Your task to perform on an android device: Do I have any events tomorrow? Image 0: 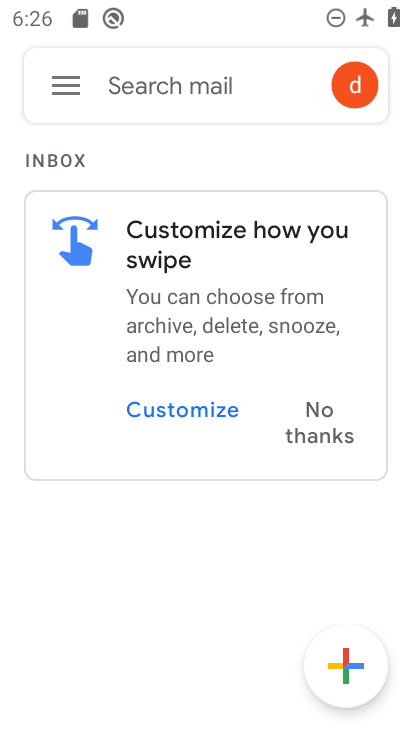
Step 0: press home button
Your task to perform on an android device: Do I have any events tomorrow? Image 1: 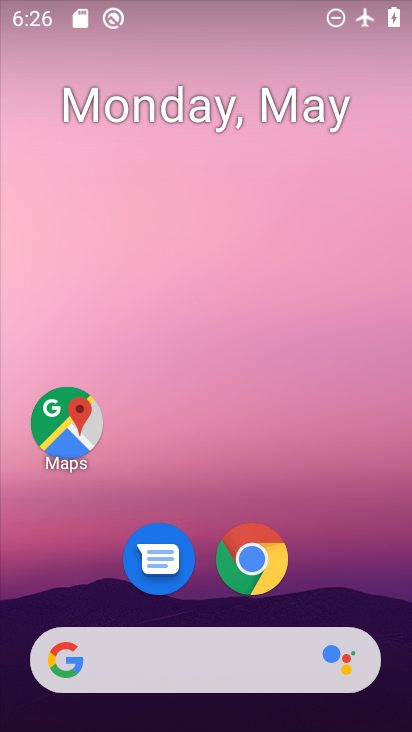
Step 1: drag from (279, 395) to (167, 40)
Your task to perform on an android device: Do I have any events tomorrow? Image 2: 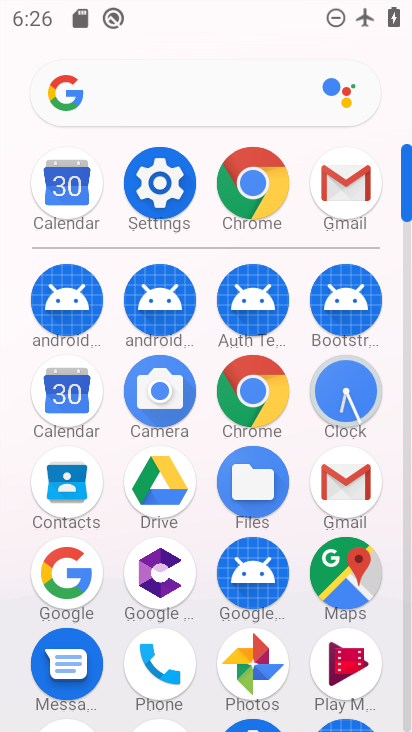
Step 2: click (56, 374)
Your task to perform on an android device: Do I have any events tomorrow? Image 3: 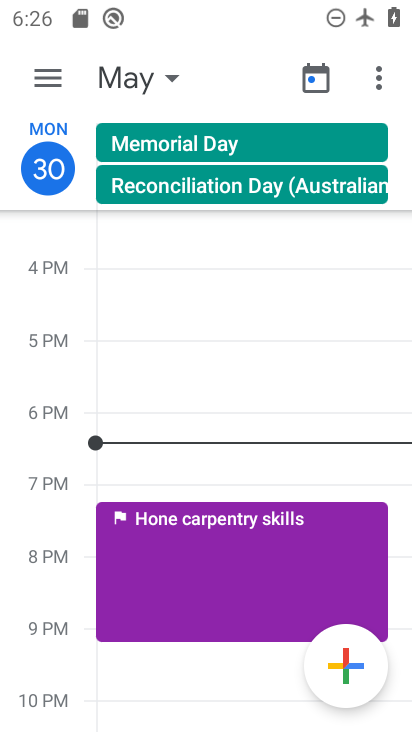
Step 3: click (166, 73)
Your task to perform on an android device: Do I have any events tomorrow? Image 4: 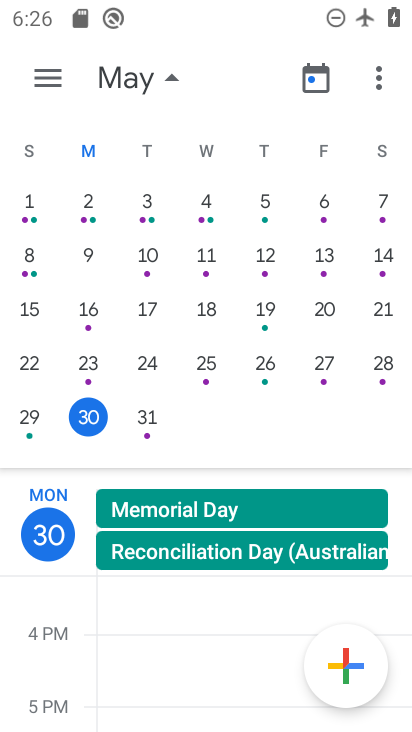
Step 4: click (150, 410)
Your task to perform on an android device: Do I have any events tomorrow? Image 5: 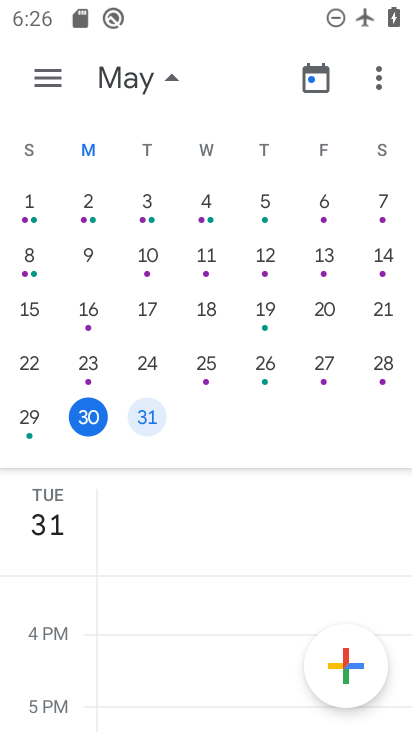
Step 5: task complete